Your task to perform on an android device: Check the settings for the Amazon Alexa app Image 0: 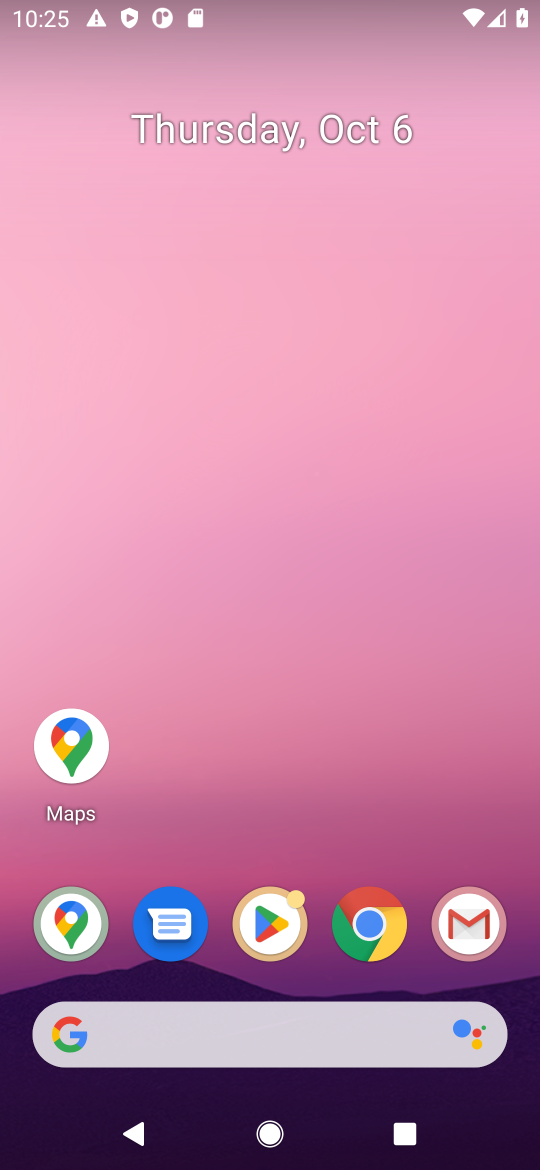
Step 0: drag from (288, 1040) to (344, 244)
Your task to perform on an android device: Check the settings for the Amazon Alexa app Image 1: 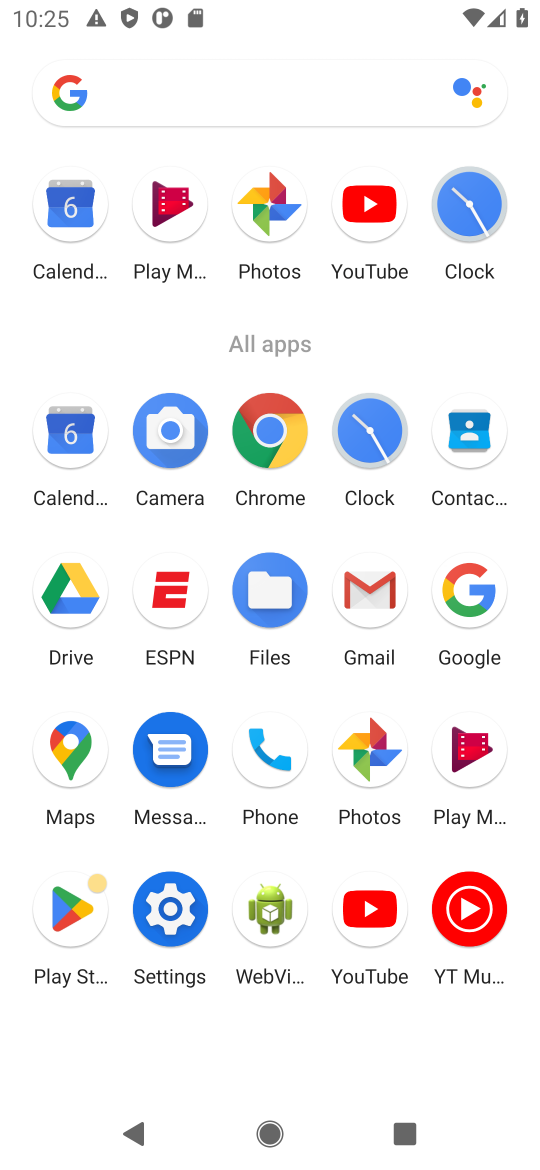
Step 1: click (254, 451)
Your task to perform on an android device: Check the settings for the Amazon Alexa app Image 2: 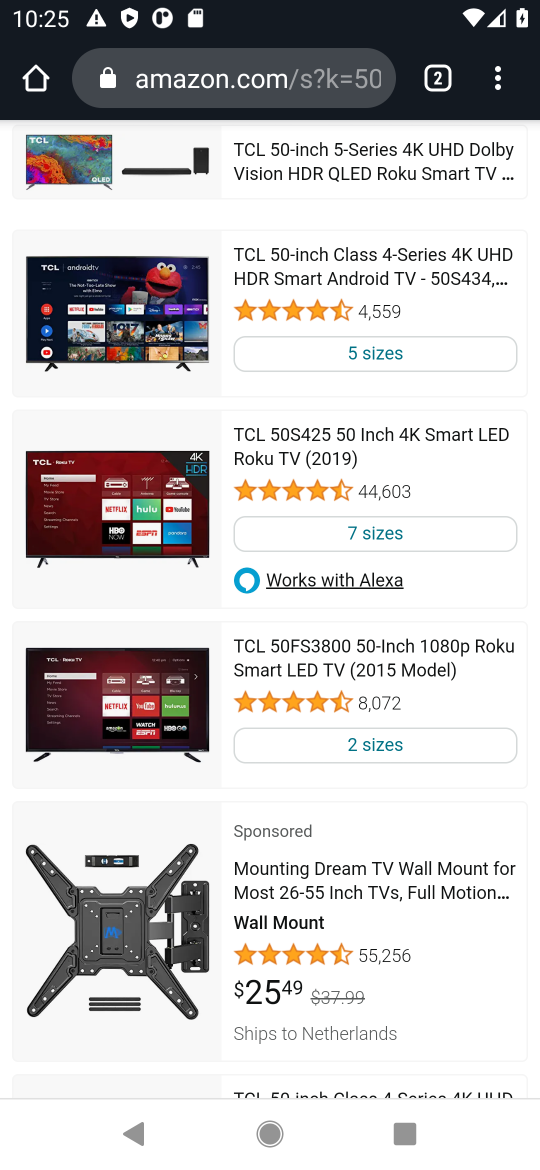
Step 2: drag from (497, 80) to (310, 149)
Your task to perform on an android device: Check the settings for the Amazon Alexa app Image 3: 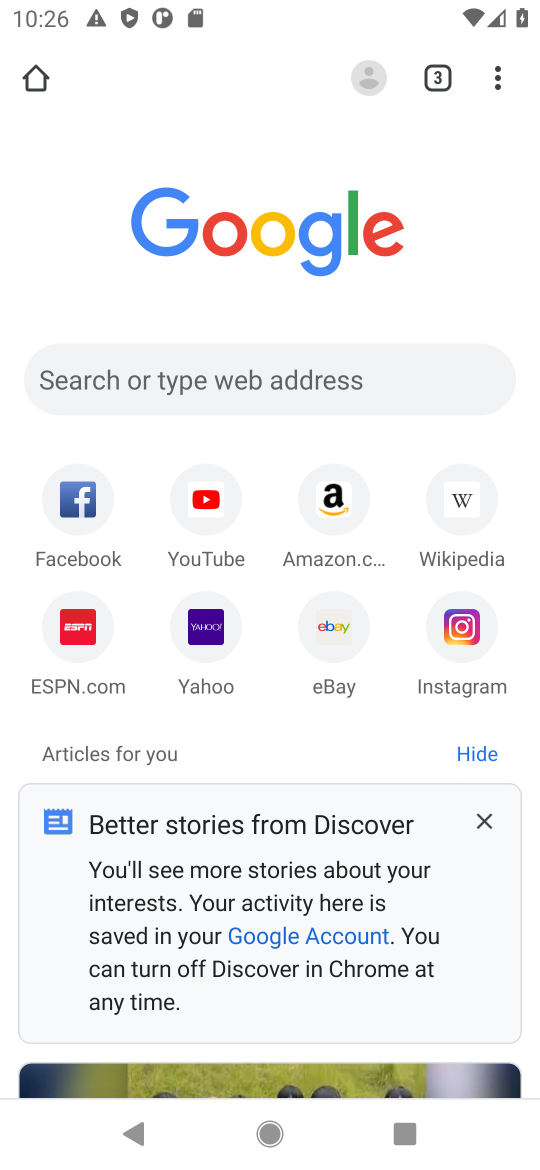
Step 3: click (324, 505)
Your task to perform on an android device: Check the settings for the Amazon Alexa app Image 4: 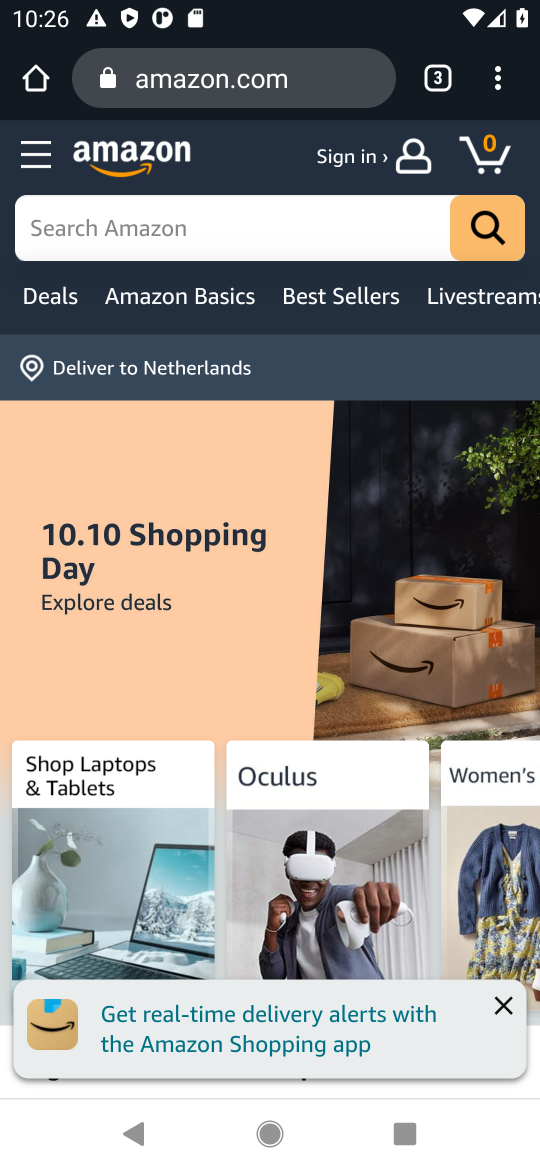
Step 4: task complete